Your task to perform on an android device: manage bookmarks in the chrome app Image 0: 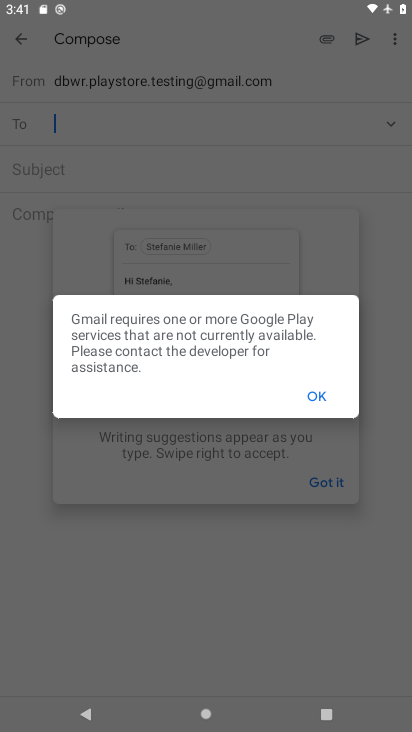
Step 0: press home button
Your task to perform on an android device: manage bookmarks in the chrome app Image 1: 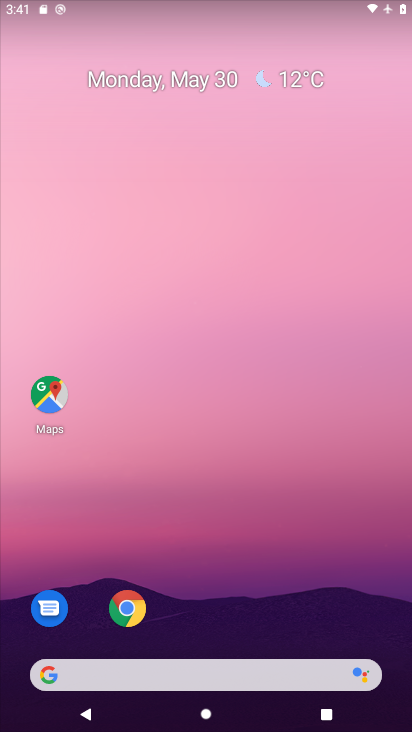
Step 1: click (115, 611)
Your task to perform on an android device: manage bookmarks in the chrome app Image 2: 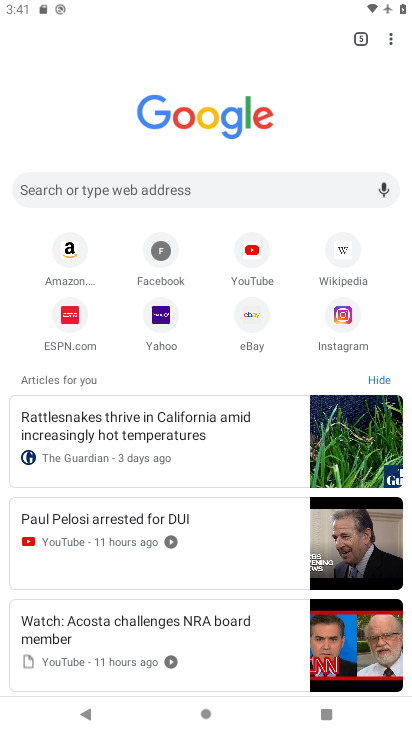
Step 2: click (389, 39)
Your task to perform on an android device: manage bookmarks in the chrome app Image 3: 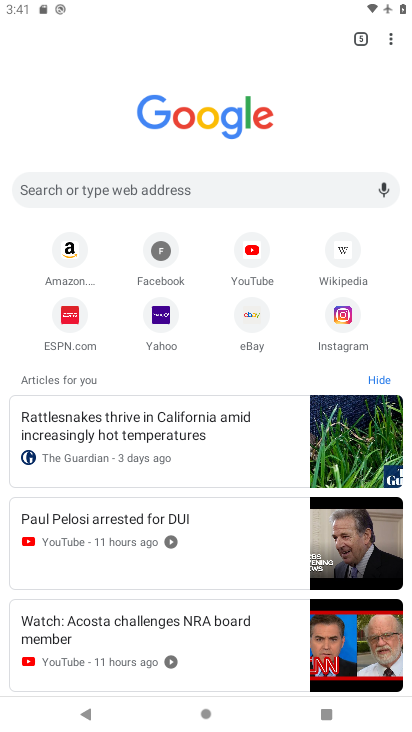
Step 3: click (381, 37)
Your task to perform on an android device: manage bookmarks in the chrome app Image 4: 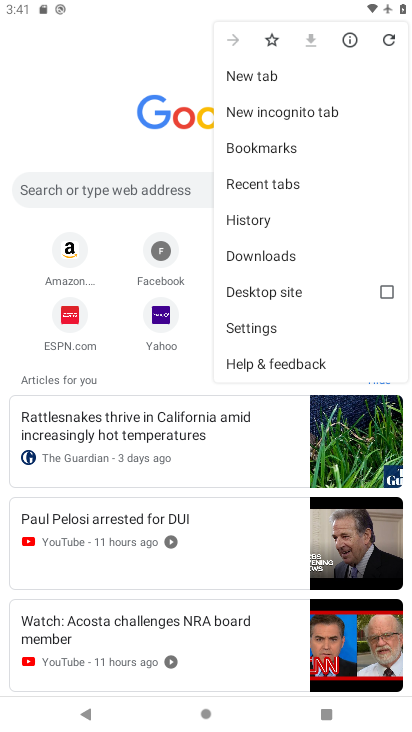
Step 4: click (282, 143)
Your task to perform on an android device: manage bookmarks in the chrome app Image 5: 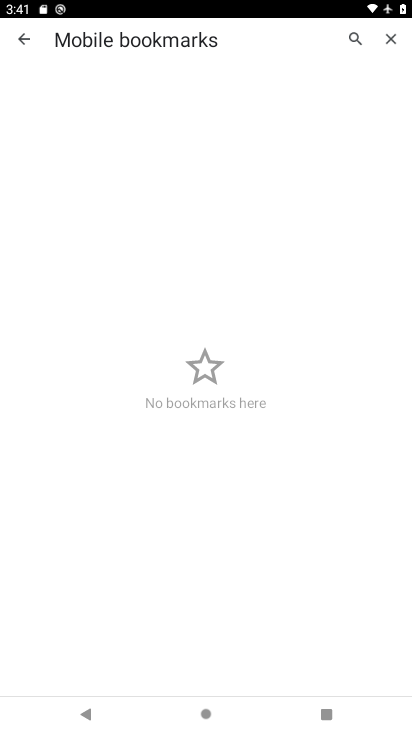
Step 5: task complete